Your task to perform on an android device: check google app version Image 0: 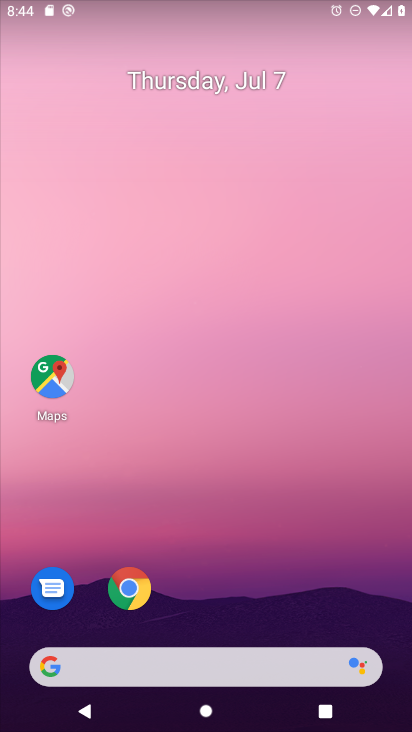
Step 0: drag from (210, 592) to (204, 328)
Your task to perform on an android device: check google app version Image 1: 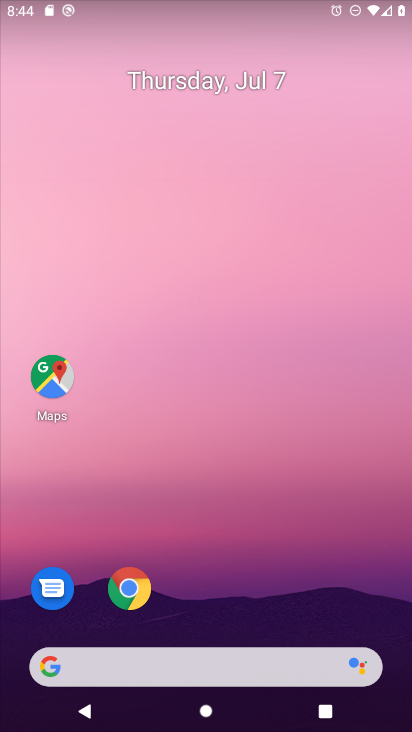
Step 1: drag from (224, 640) to (224, 272)
Your task to perform on an android device: check google app version Image 2: 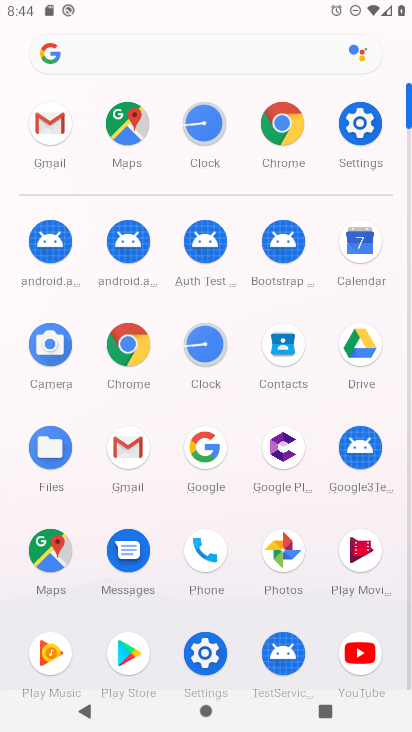
Step 2: click (196, 443)
Your task to perform on an android device: check google app version Image 3: 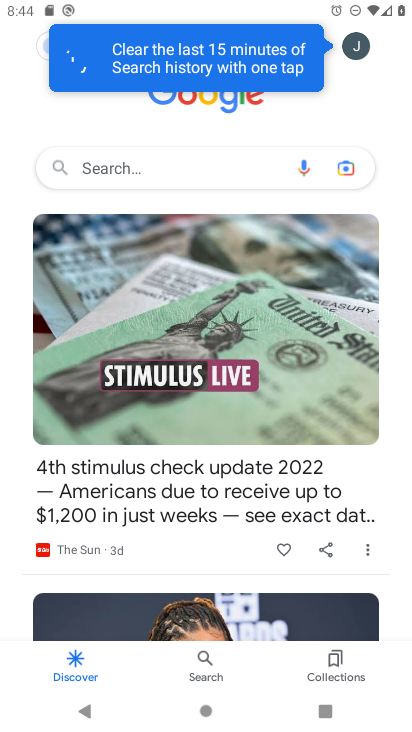
Step 3: click (356, 35)
Your task to perform on an android device: check google app version Image 4: 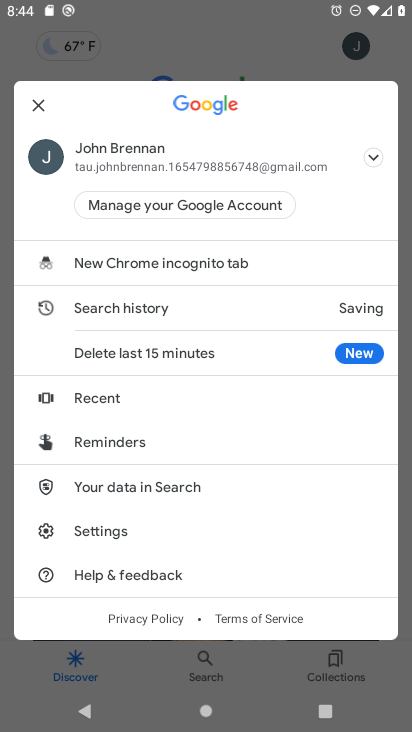
Step 4: click (138, 534)
Your task to perform on an android device: check google app version Image 5: 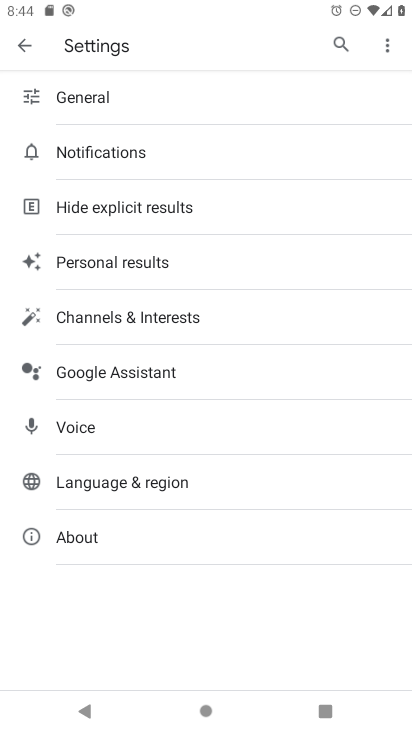
Step 5: click (127, 536)
Your task to perform on an android device: check google app version Image 6: 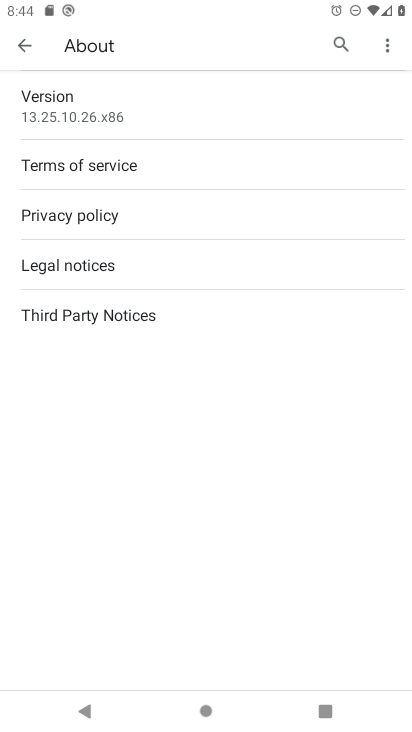
Step 6: click (204, 99)
Your task to perform on an android device: check google app version Image 7: 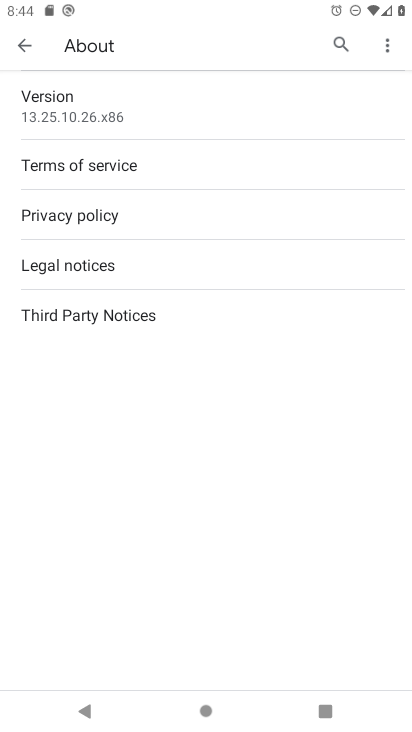
Step 7: task complete